Your task to perform on an android device: Search for pizza restaurants on Maps Image 0: 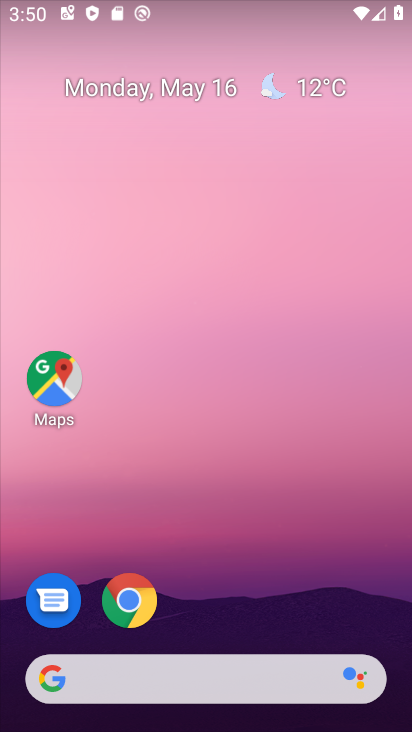
Step 0: click (50, 369)
Your task to perform on an android device: Search for pizza restaurants on Maps Image 1: 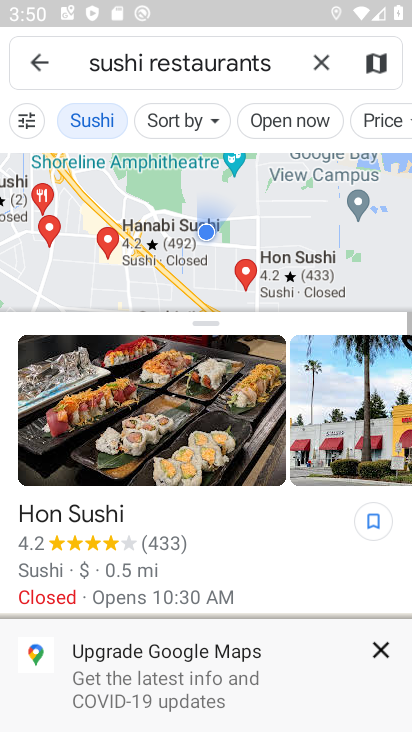
Step 1: click (315, 59)
Your task to perform on an android device: Search for pizza restaurants on Maps Image 2: 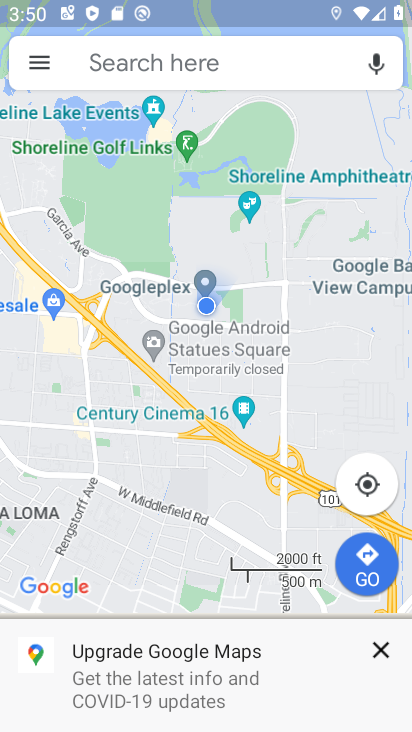
Step 2: click (237, 56)
Your task to perform on an android device: Search for pizza restaurants on Maps Image 3: 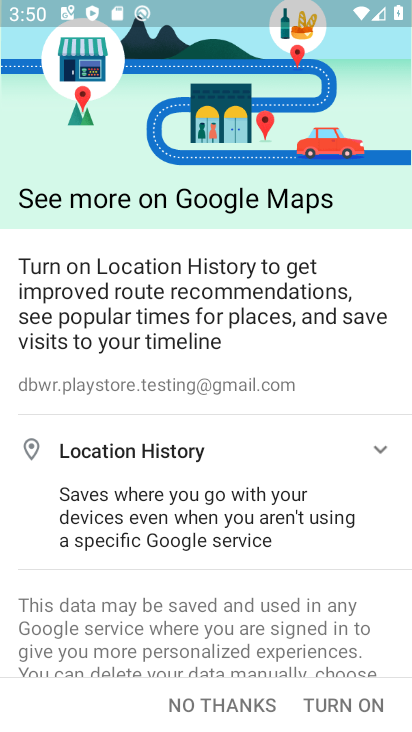
Step 3: drag from (230, 585) to (248, 211)
Your task to perform on an android device: Search for pizza restaurants on Maps Image 4: 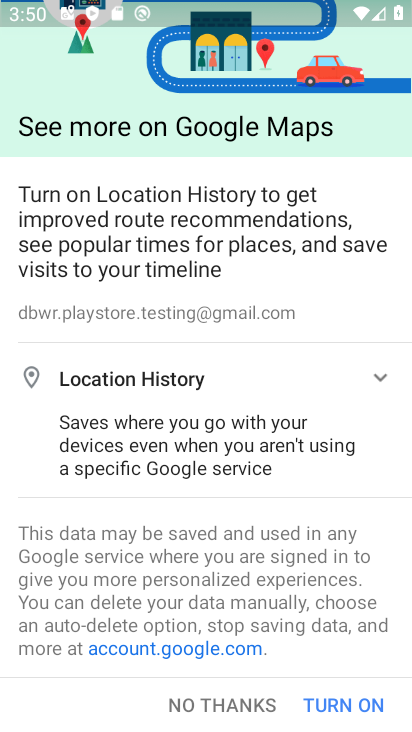
Step 4: click (316, 707)
Your task to perform on an android device: Search for pizza restaurants on Maps Image 5: 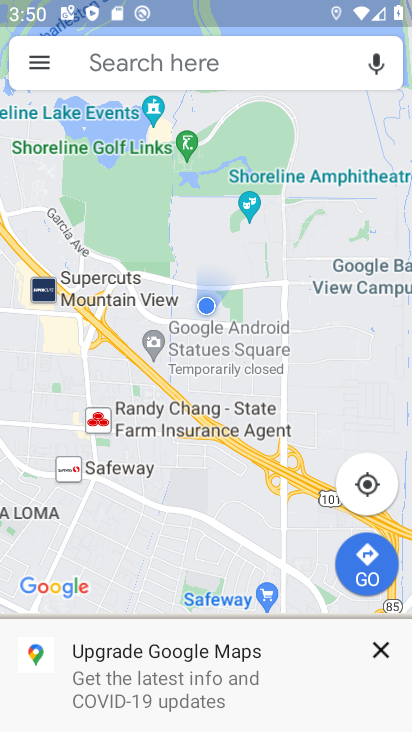
Step 5: click (133, 63)
Your task to perform on an android device: Search for pizza restaurants on Maps Image 6: 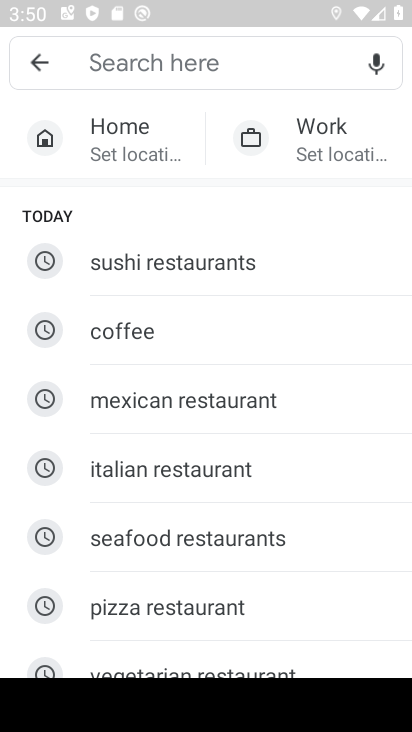
Step 6: click (172, 599)
Your task to perform on an android device: Search for pizza restaurants on Maps Image 7: 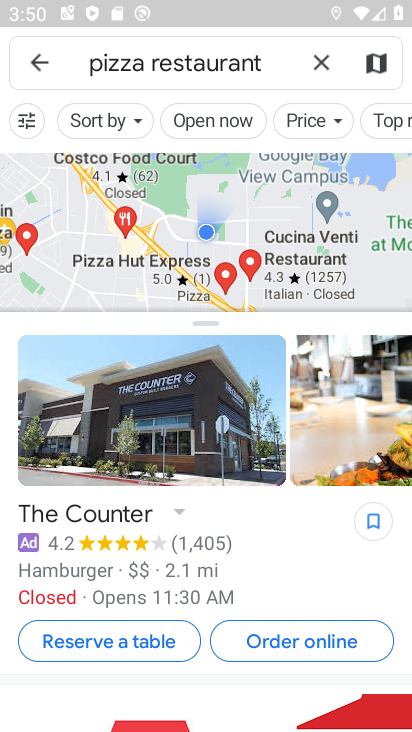
Step 7: task complete